Your task to perform on an android device: open app "Spotify" (install if not already installed) and enter user name: "infallible@icloud.com" and password: "implored" Image 0: 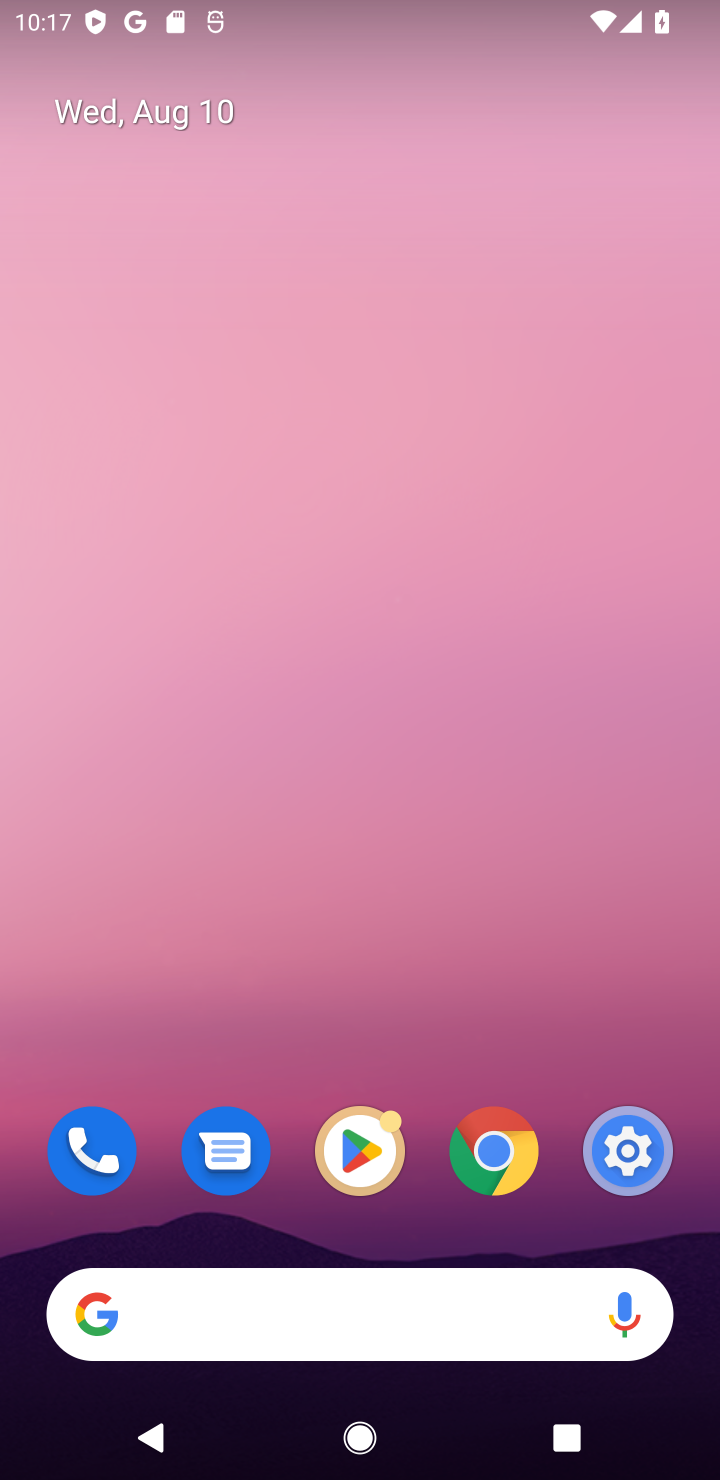
Step 0: click (368, 1144)
Your task to perform on an android device: open app "Spotify" (install if not already installed) and enter user name: "infallible@icloud.com" and password: "implored" Image 1: 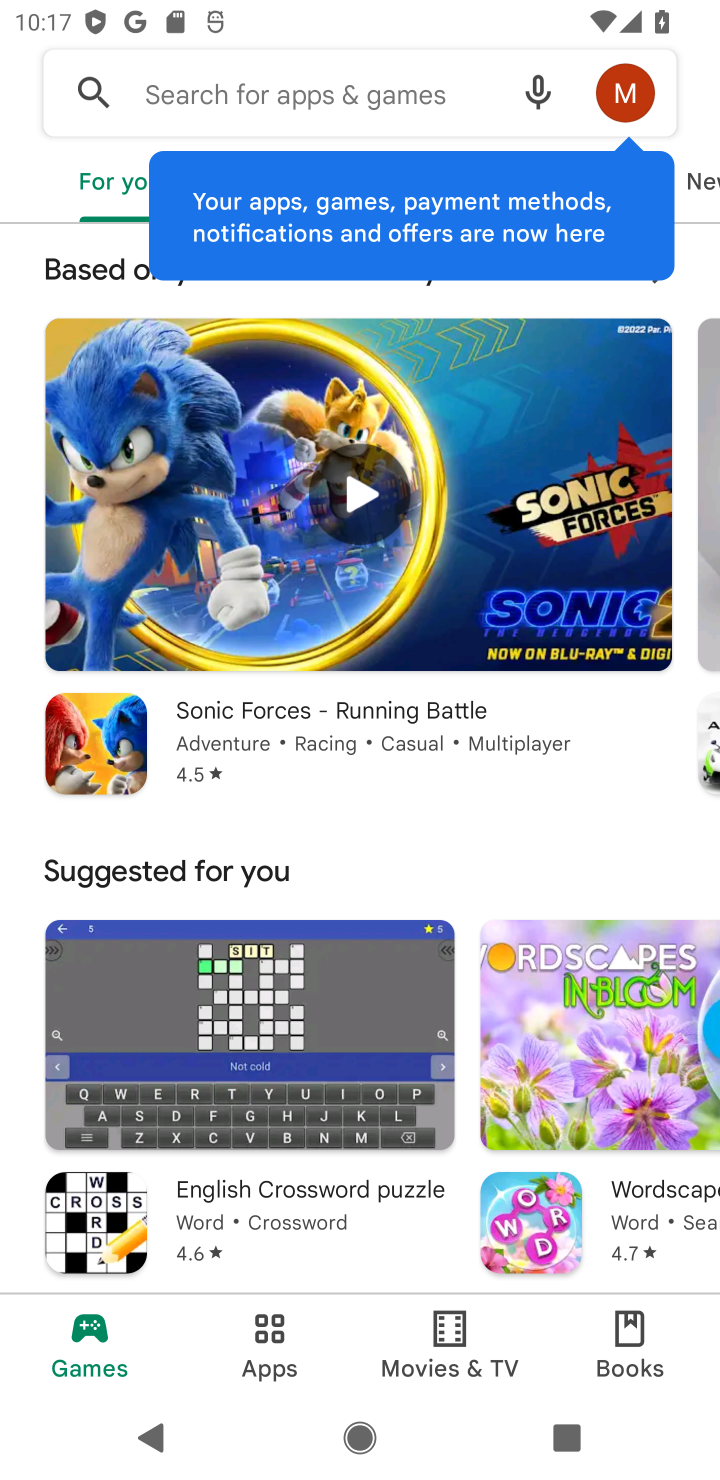
Step 1: click (363, 92)
Your task to perform on an android device: open app "Spotify" (install if not already installed) and enter user name: "infallible@icloud.com" and password: "implored" Image 2: 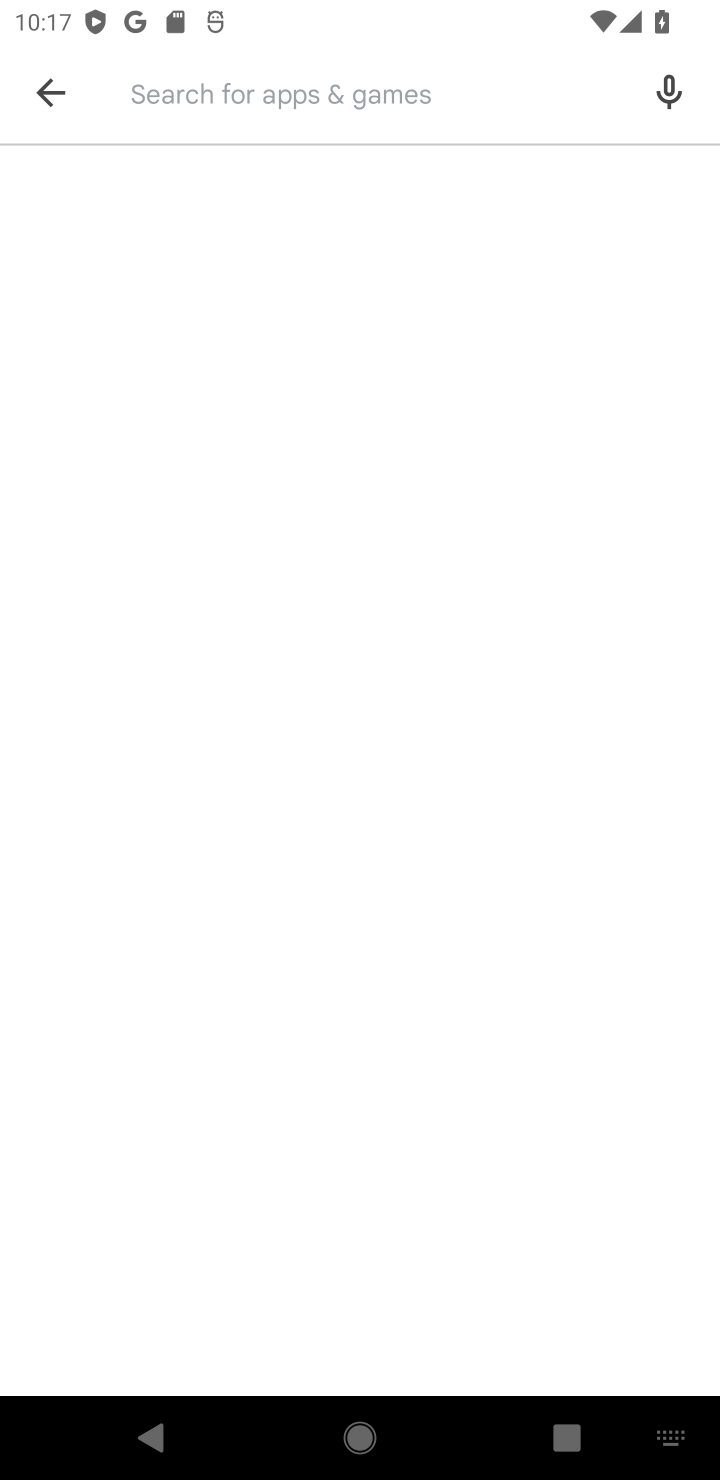
Step 2: type "spotify"
Your task to perform on an android device: open app "Spotify" (install if not already installed) and enter user name: "infallible@icloud.com" and password: "implored" Image 3: 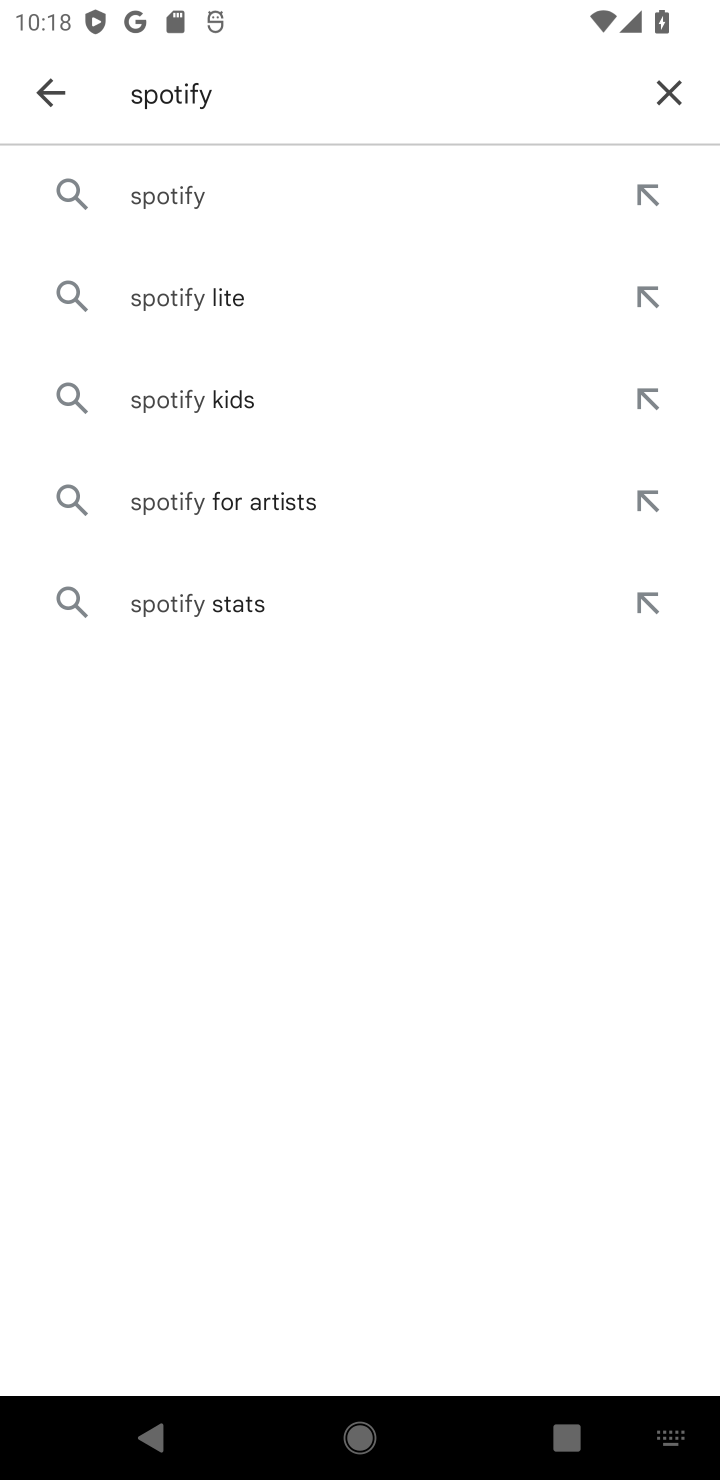
Step 3: click (126, 201)
Your task to perform on an android device: open app "Spotify" (install if not already installed) and enter user name: "infallible@icloud.com" and password: "implored" Image 4: 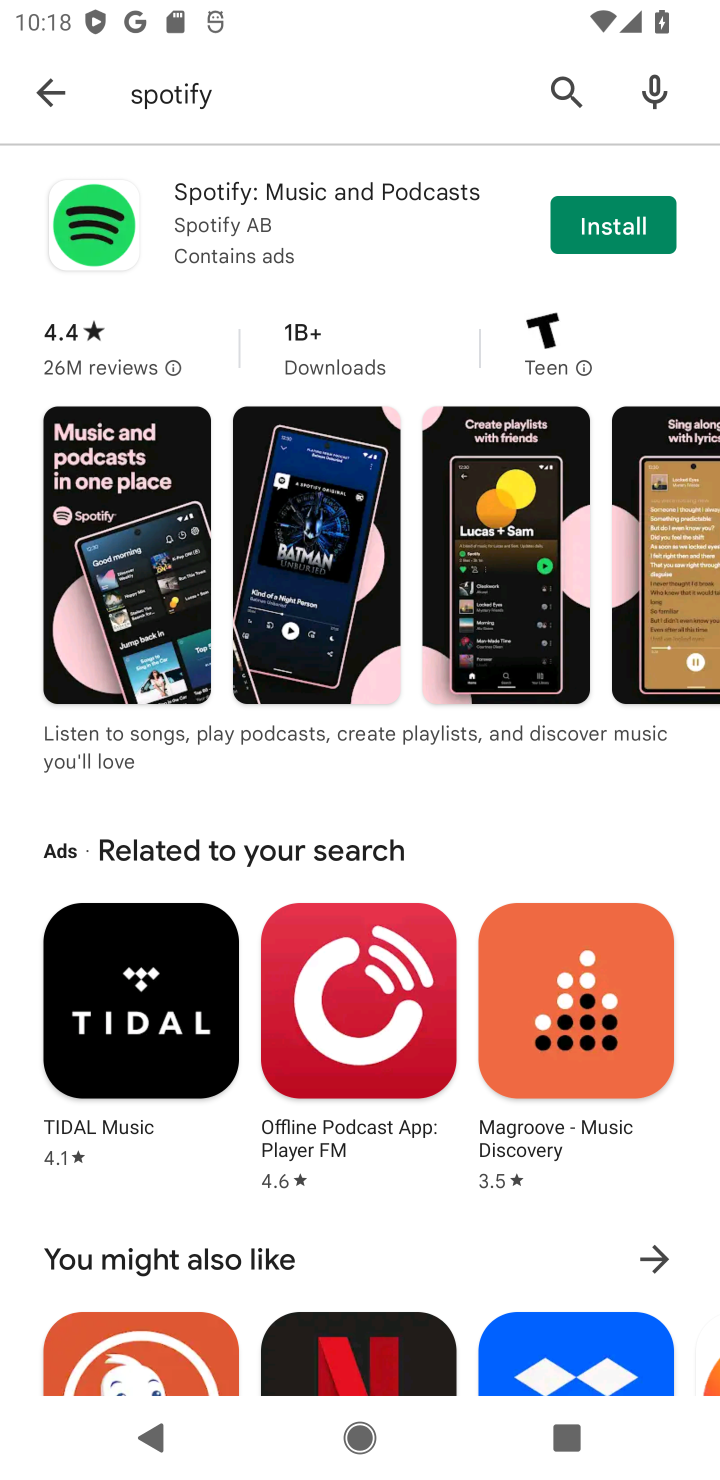
Step 4: click (632, 234)
Your task to perform on an android device: open app "Spotify" (install if not already installed) and enter user name: "infallible@icloud.com" and password: "implored" Image 5: 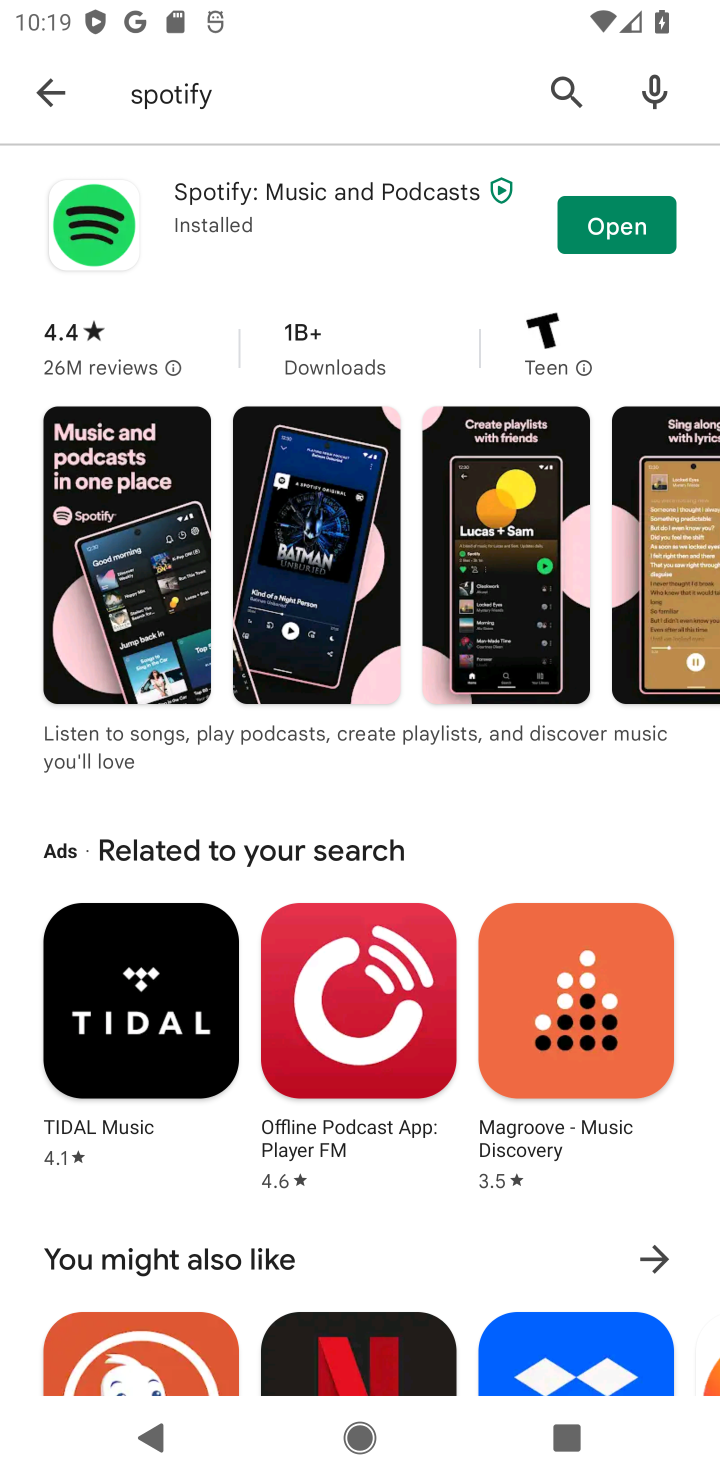
Step 5: click (627, 210)
Your task to perform on an android device: open app "Spotify" (install if not already installed) and enter user name: "infallible@icloud.com" and password: "implored" Image 6: 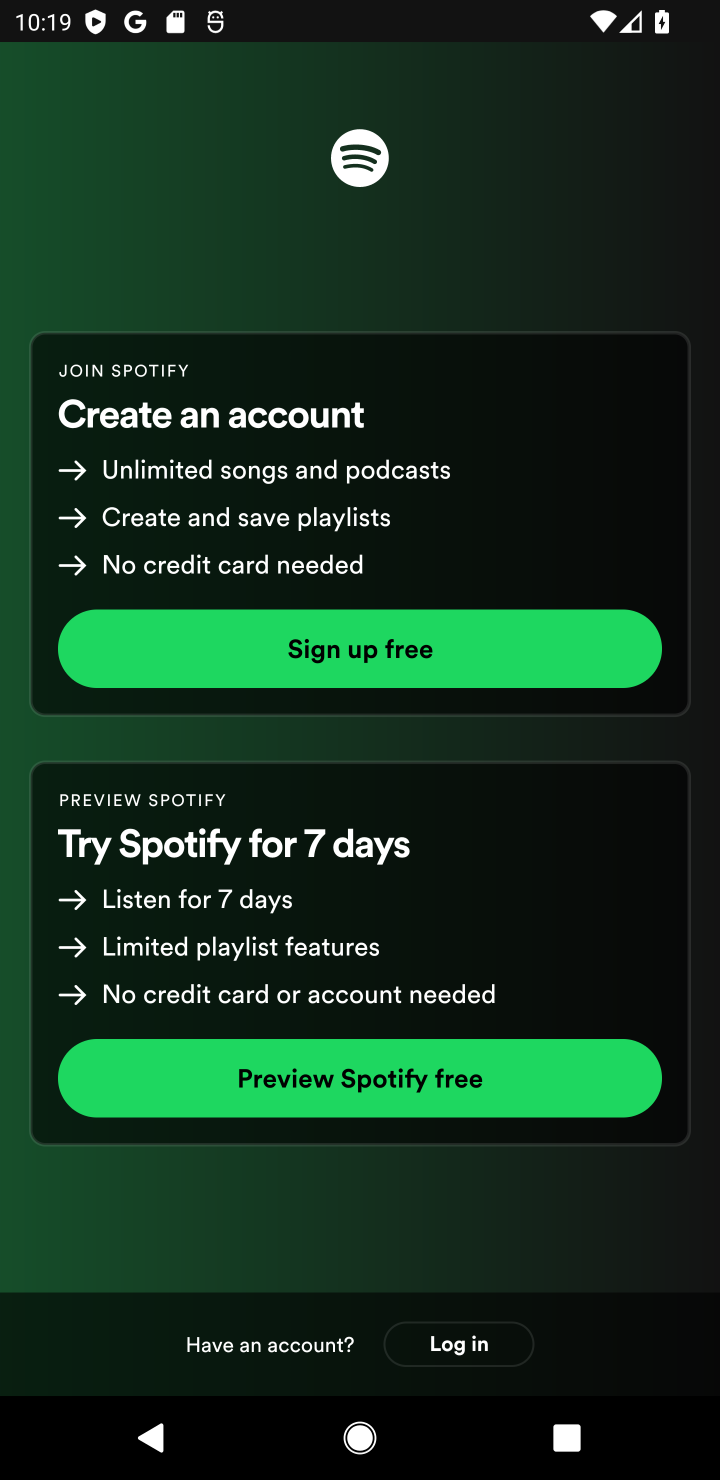
Step 6: click (395, 650)
Your task to perform on an android device: open app "Spotify" (install if not already installed) and enter user name: "infallible@icloud.com" and password: "implored" Image 7: 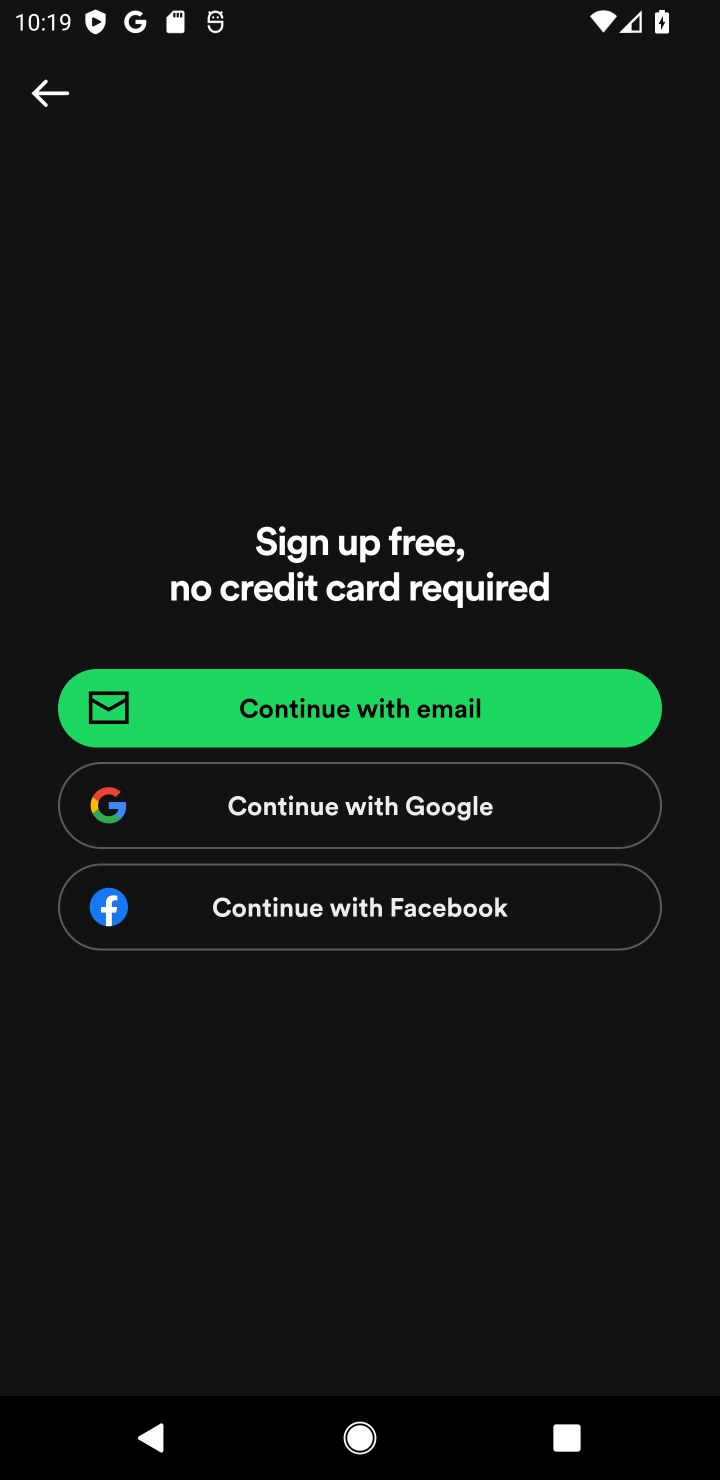
Step 7: press back button
Your task to perform on an android device: open app "Spotify" (install if not already installed) and enter user name: "infallible@icloud.com" and password: "implored" Image 8: 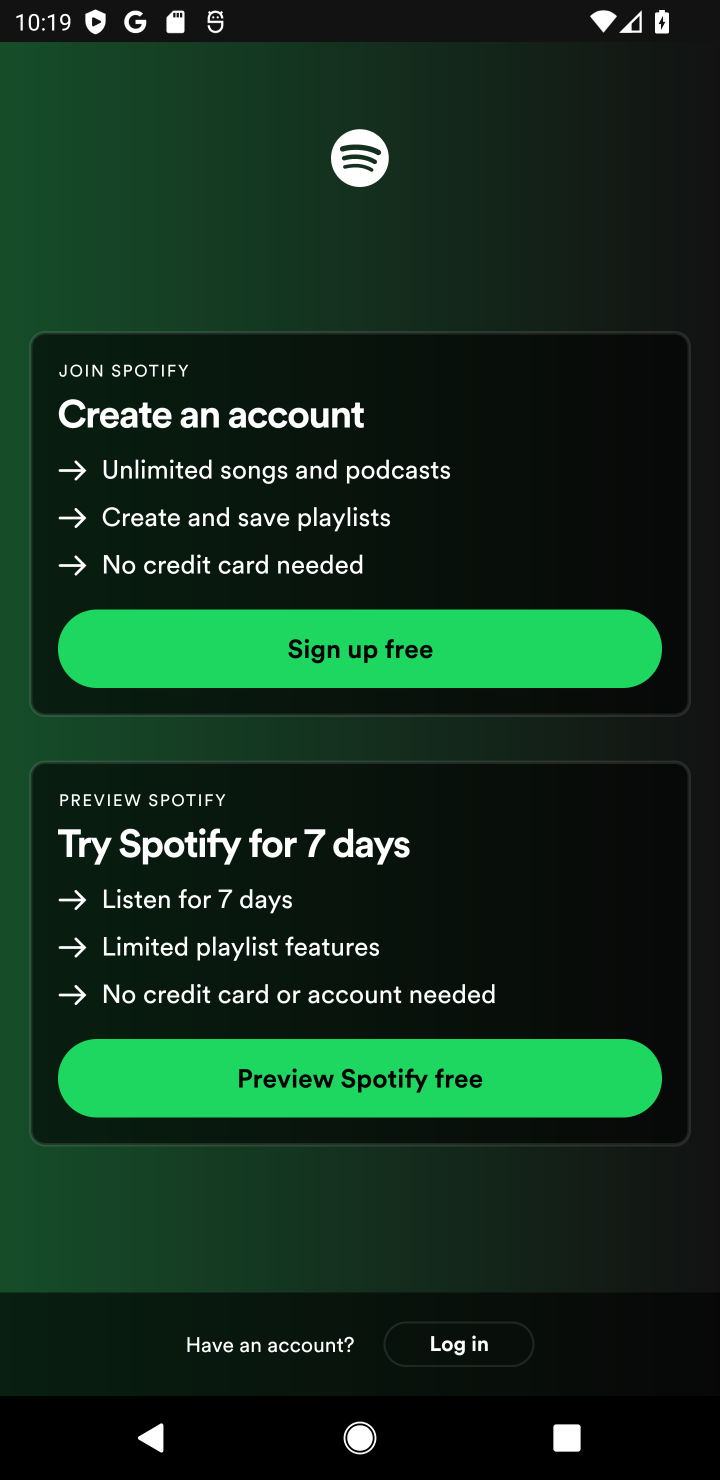
Step 8: click (446, 1341)
Your task to perform on an android device: open app "Spotify" (install if not already installed) and enter user name: "infallible@icloud.com" and password: "implored" Image 9: 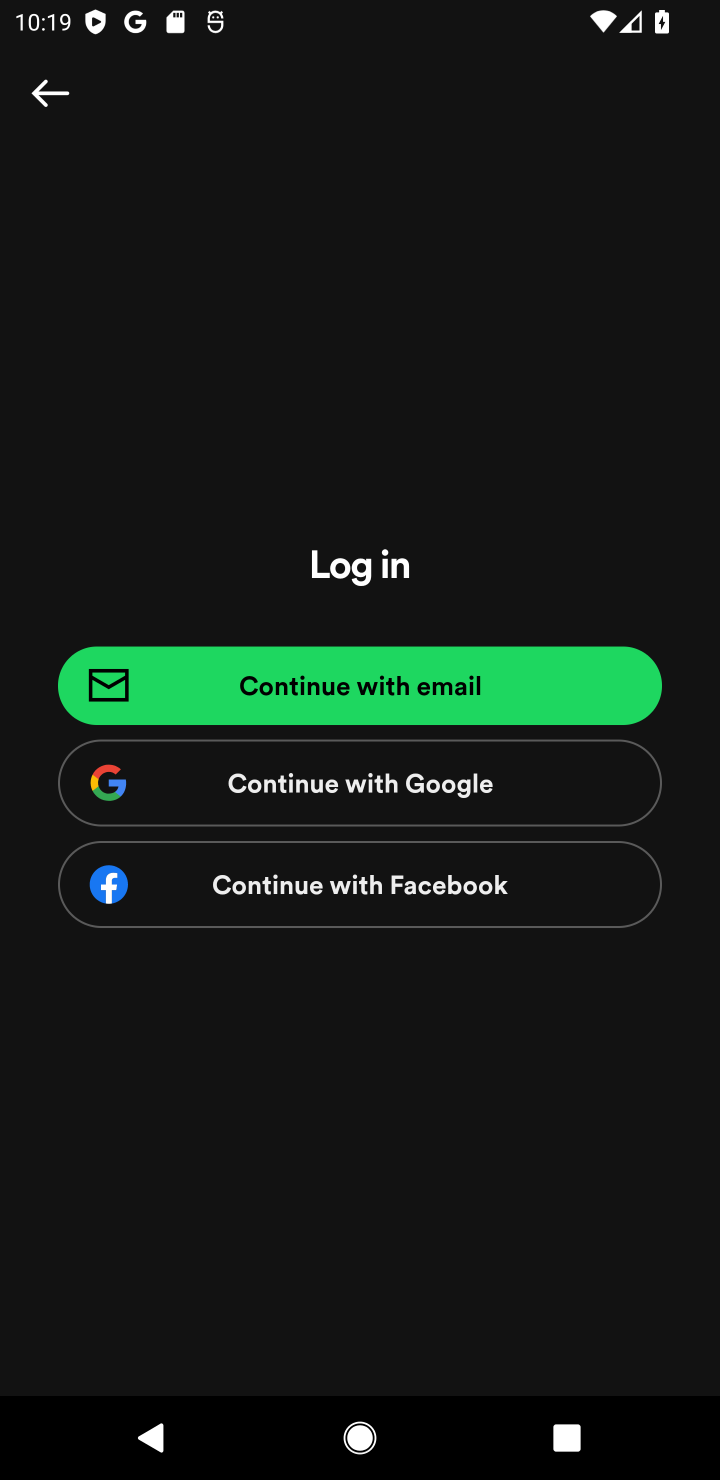
Step 9: click (416, 702)
Your task to perform on an android device: open app "Spotify" (install if not already installed) and enter user name: "infallible@icloud.com" and password: "implored" Image 10: 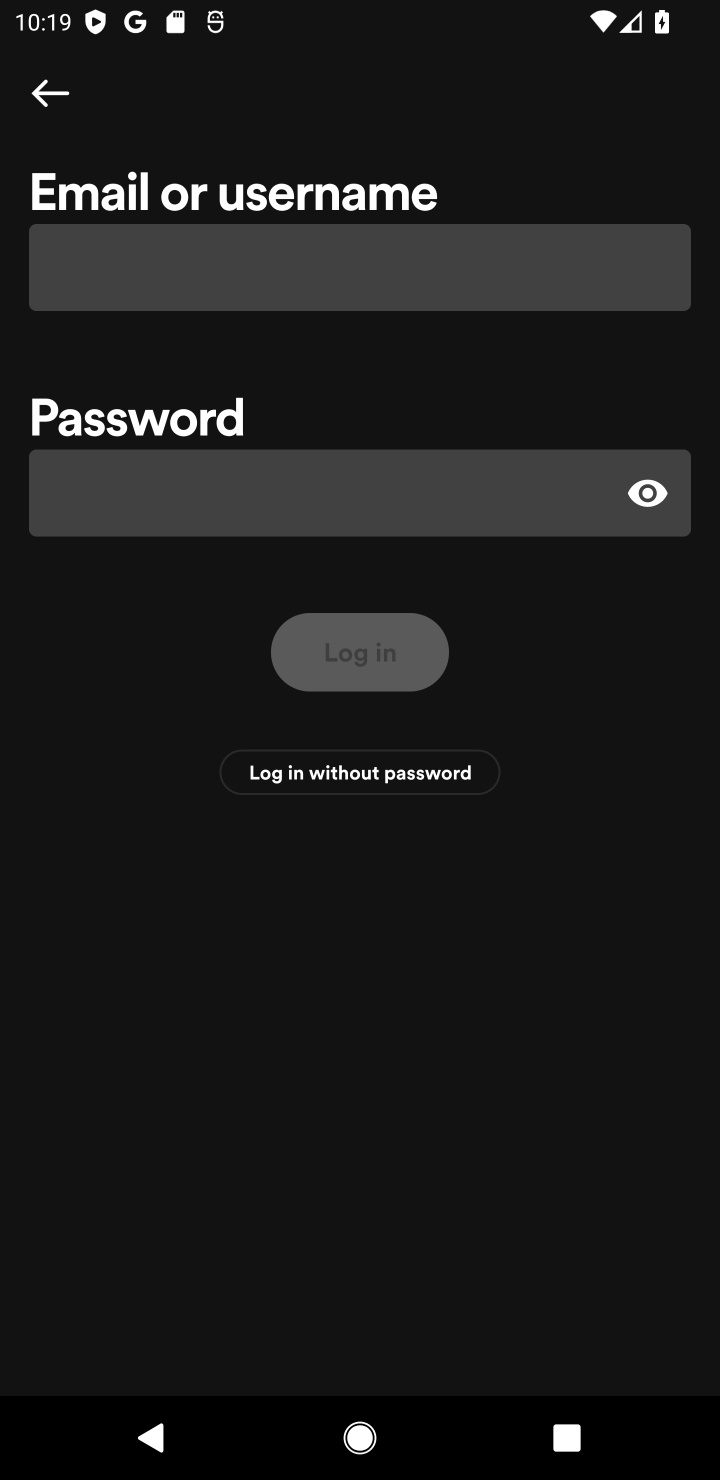
Step 10: click (293, 257)
Your task to perform on an android device: open app "Spotify" (install if not already installed) and enter user name: "infallible@icloud.com" and password: "implored" Image 11: 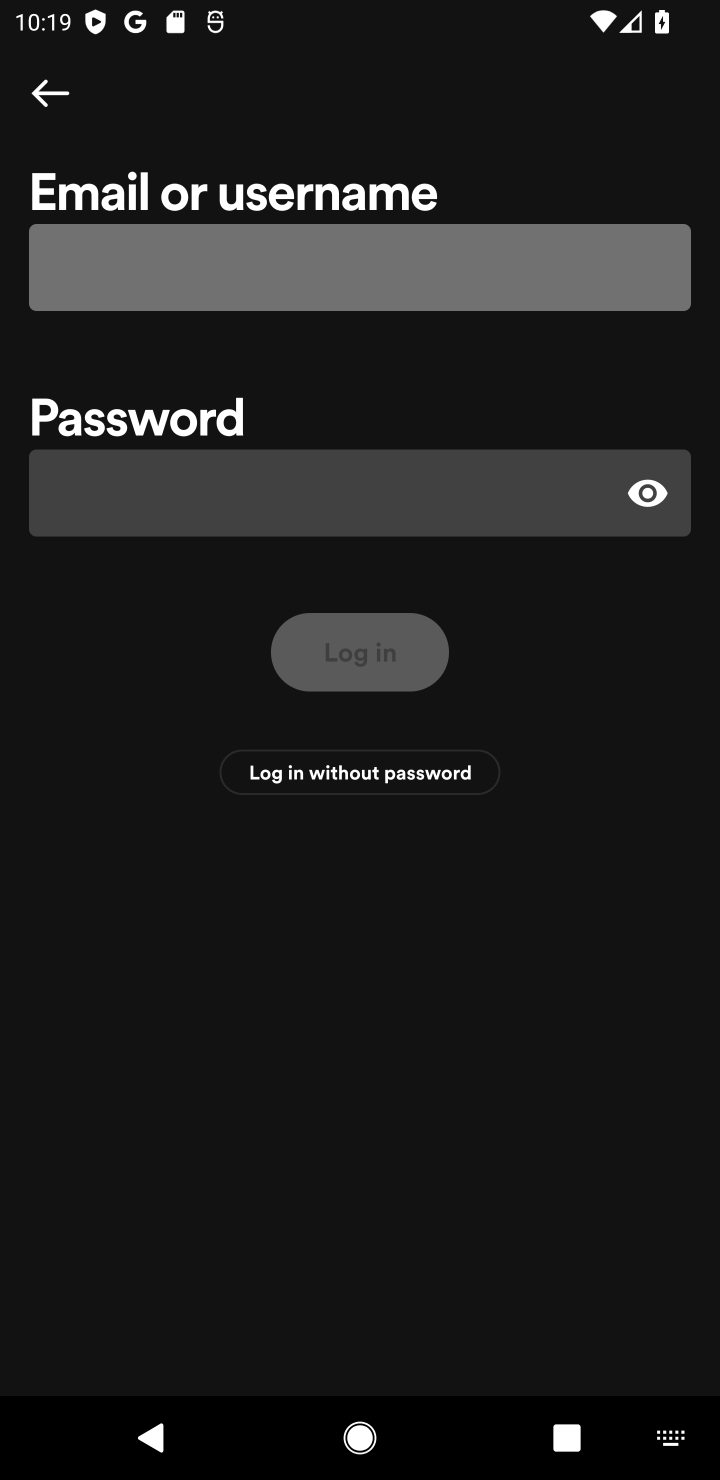
Step 11: click (257, 265)
Your task to perform on an android device: open app "Spotify" (install if not already installed) and enter user name: "infallible@icloud.com" and password: "implored" Image 12: 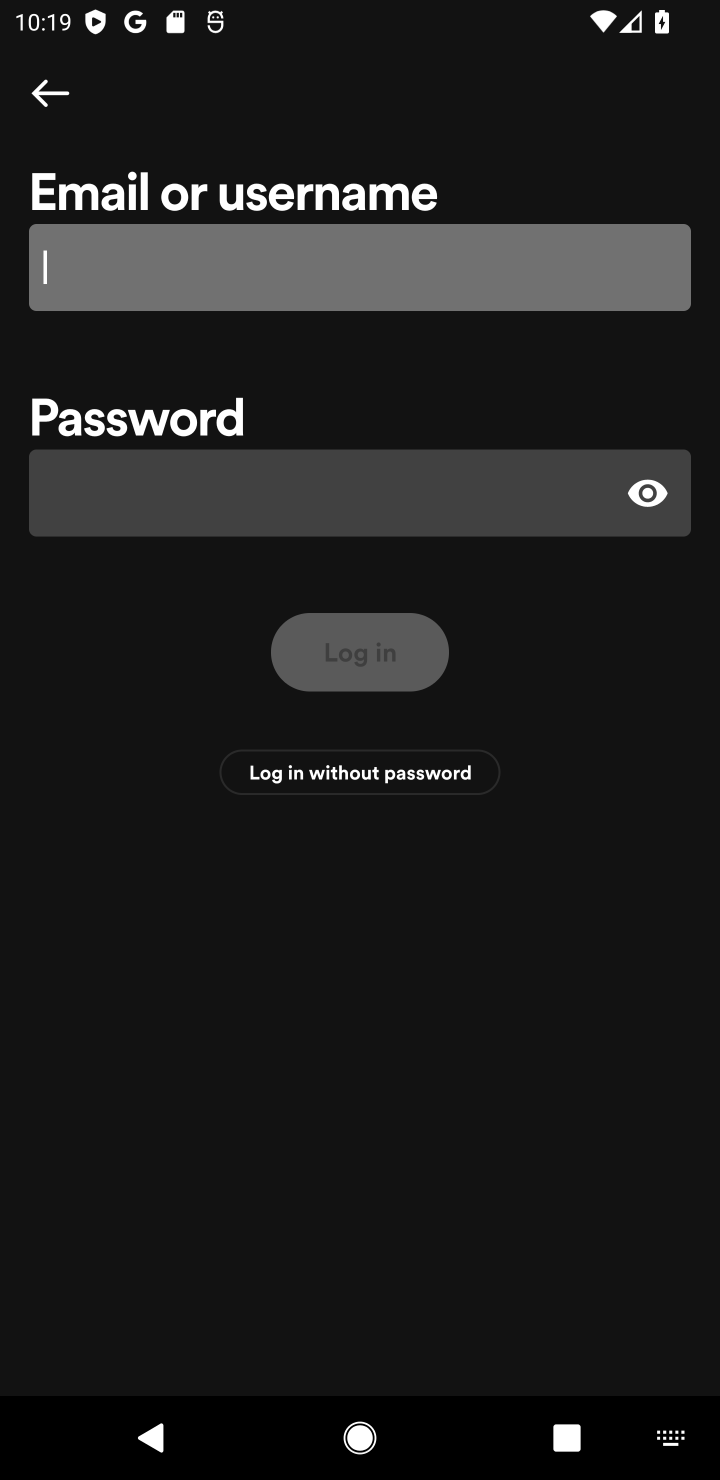
Step 12: type "infallible@icloud.com"
Your task to perform on an android device: open app "Spotify" (install if not already installed) and enter user name: "infallible@icloud.com" and password: "implored" Image 13: 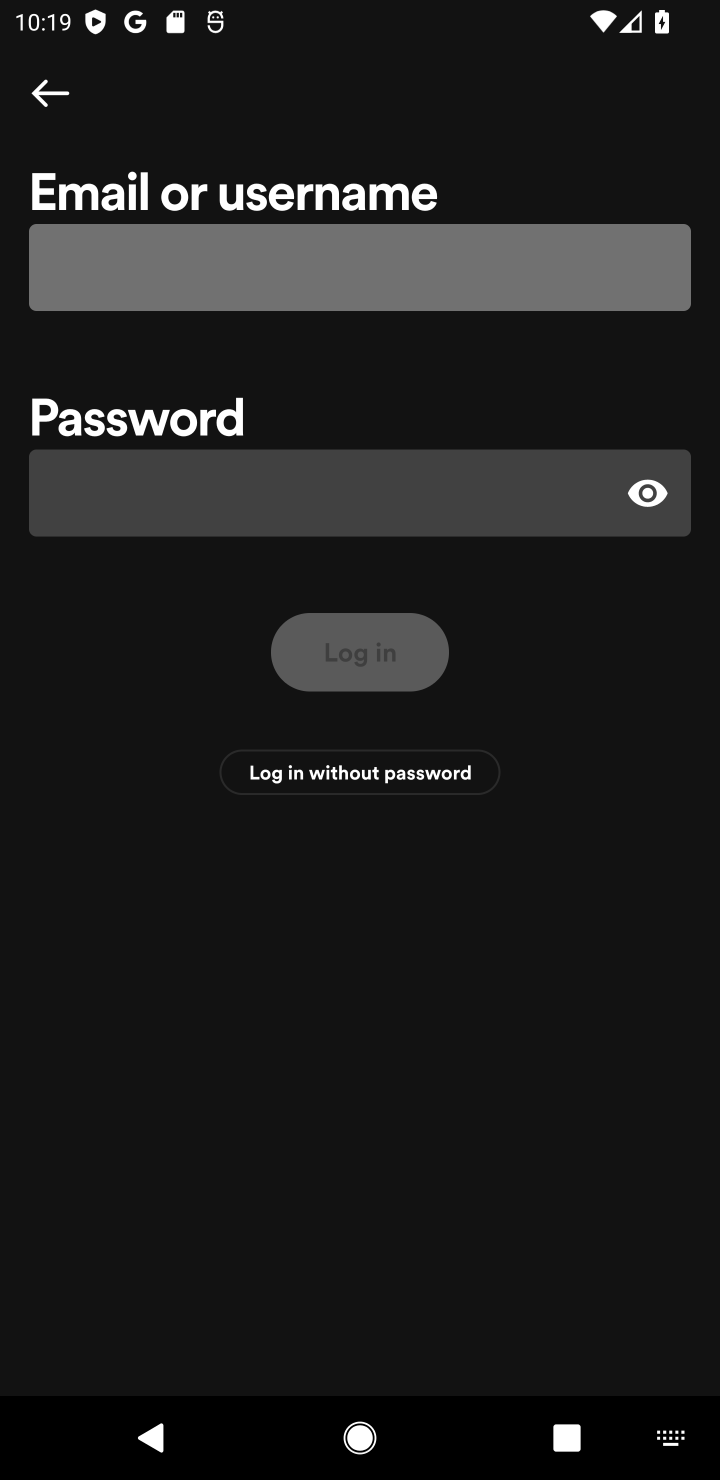
Step 13: click (244, 976)
Your task to perform on an android device: open app "Spotify" (install if not already installed) and enter user name: "infallible@icloud.com" and password: "implored" Image 14: 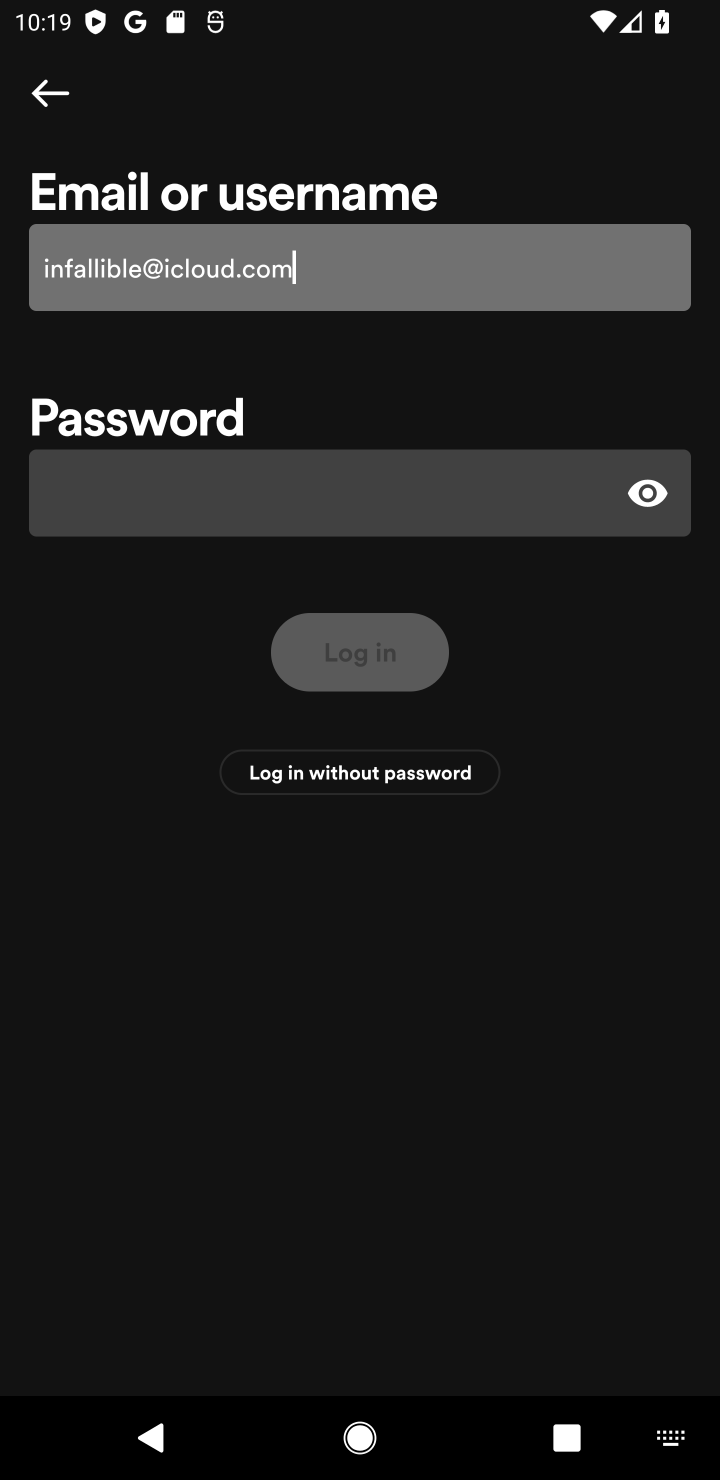
Step 14: click (258, 479)
Your task to perform on an android device: open app "Spotify" (install if not already installed) and enter user name: "infallible@icloud.com" and password: "implored" Image 15: 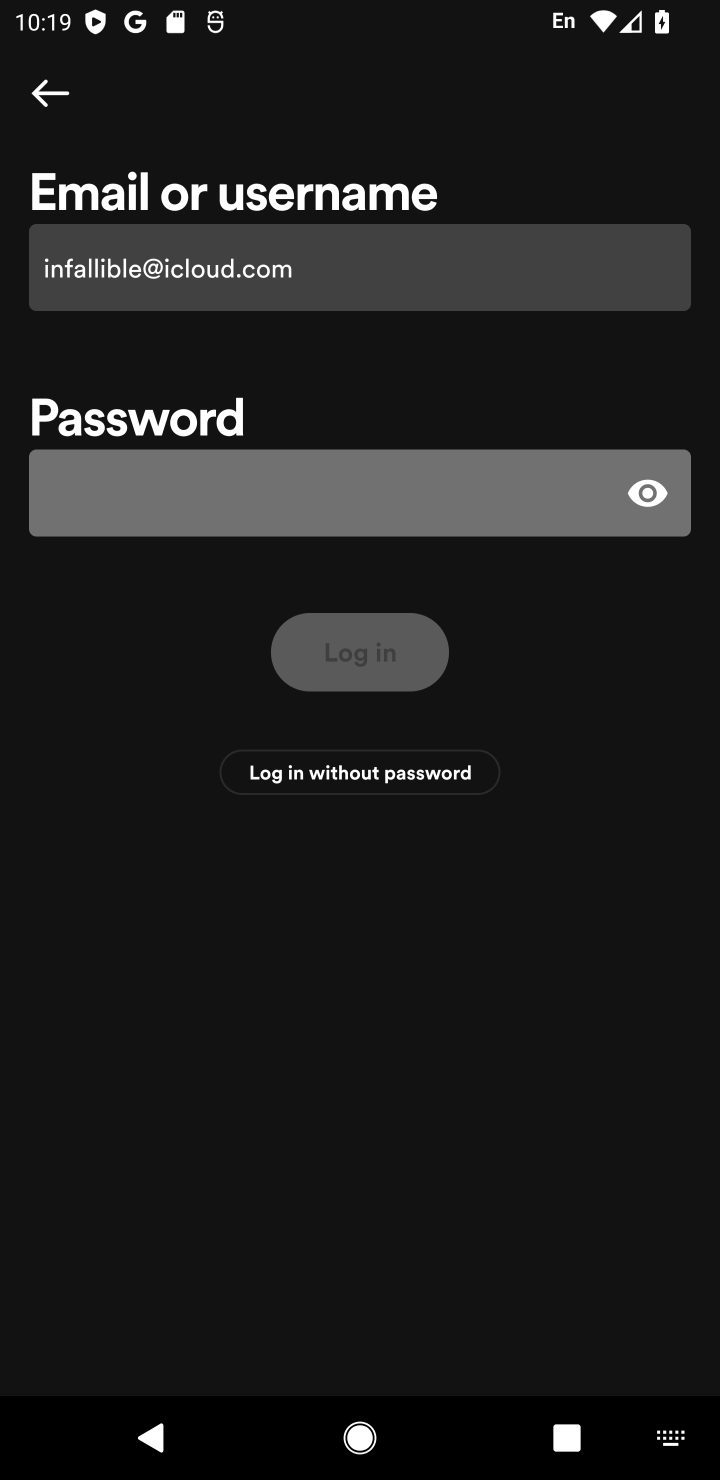
Step 15: click (292, 516)
Your task to perform on an android device: open app "Spotify" (install if not already installed) and enter user name: "infallible@icloud.com" and password: "implored" Image 16: 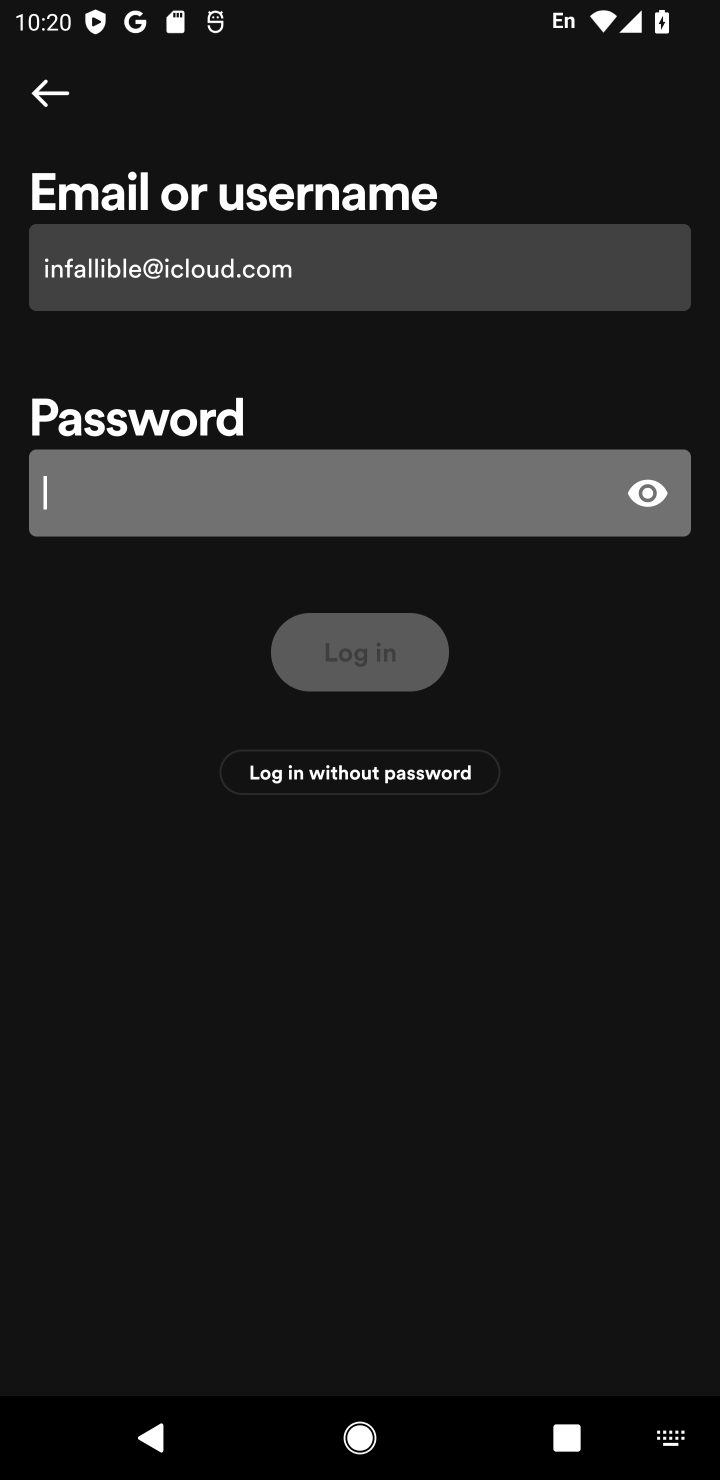
Step 16: type "implored"
Your task to perform on an android device: open app "Spotify" (install if not already installed) and enter user name: "infallible@icloud.com" and password: "implored" Image 17: 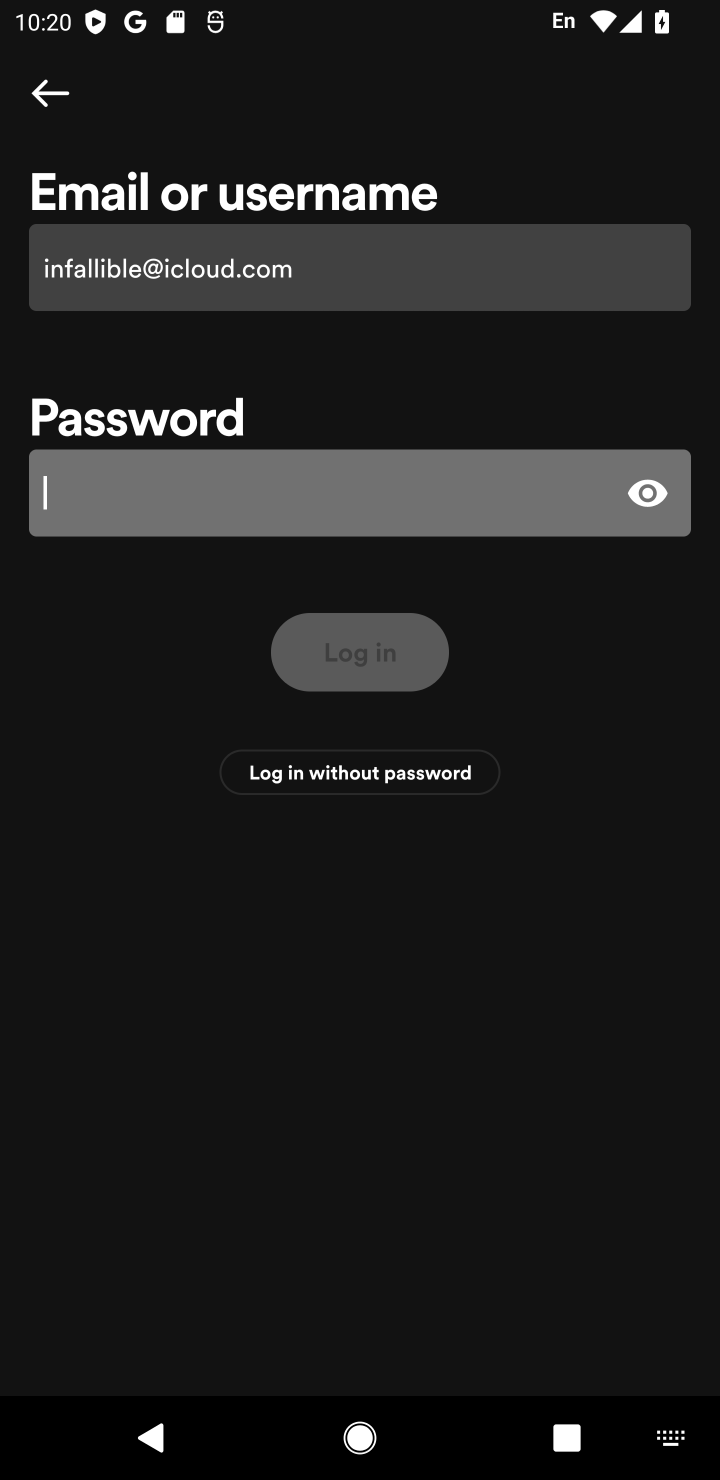
Step 17: click (187, 1046)
Your task to perform on an android device: open app "Spotify" (install if not already installed) and enter user name: "infallible@icloud.com" and password: "implored" Image 18: 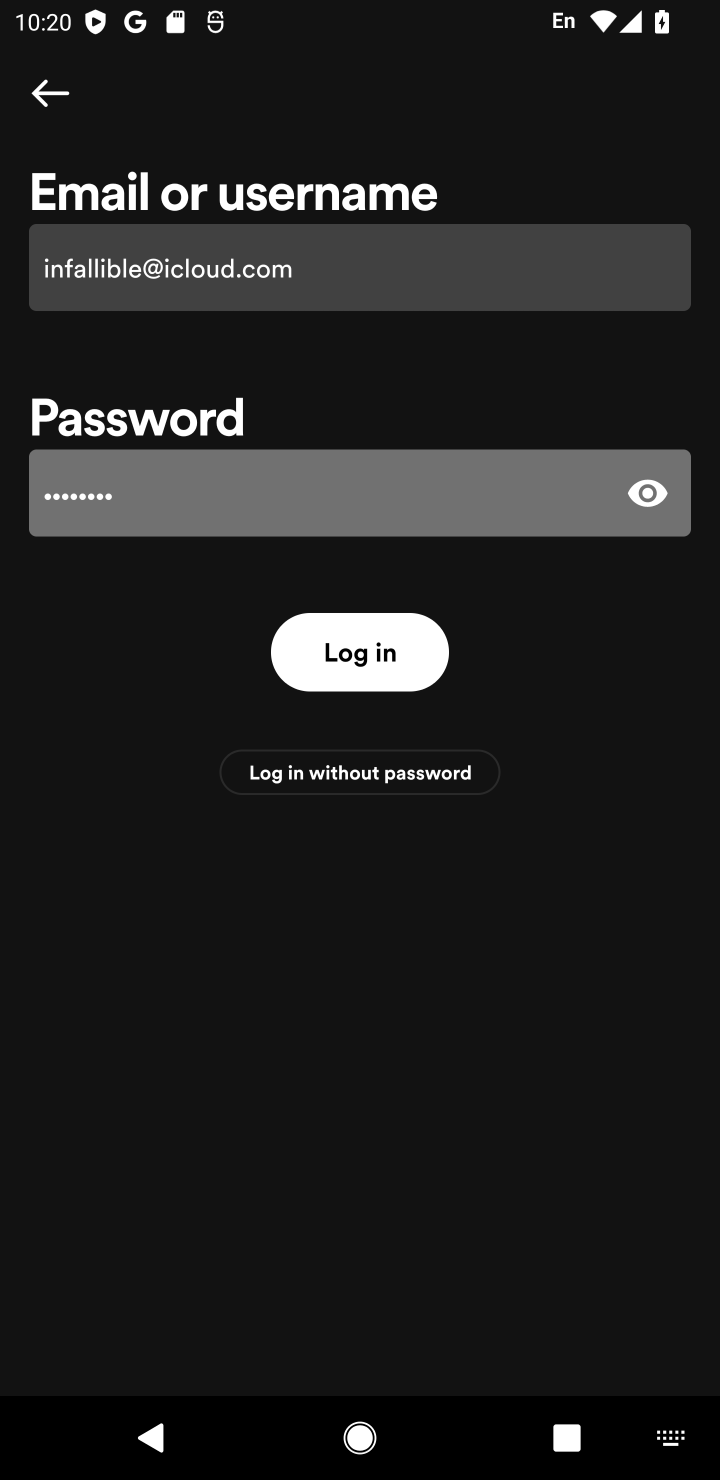
Step 18: task complete